Your task to perform on an android device: see tabs open on other devices in the chrome app Image 0: 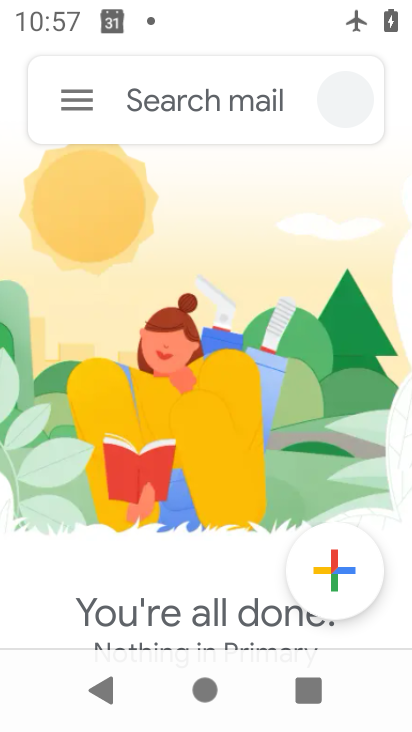
Step 0: press home button
Your task to perform on an android device: see tabs open on other devices in the chrome app Image 1: 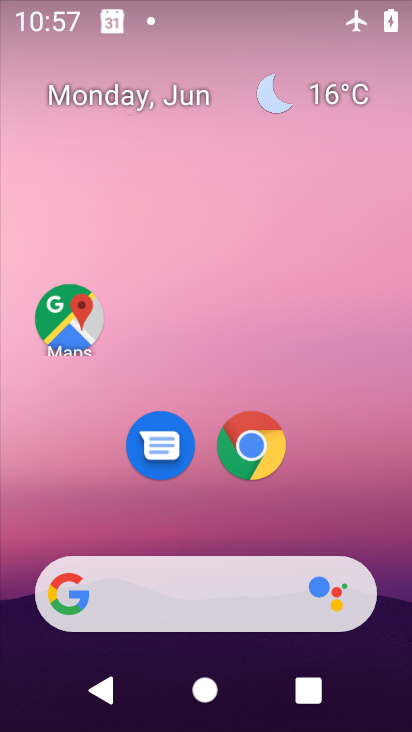
Step 1: click (245, 456)
Your task to perform on an android device: see tabs open on other devices in the chrome app Image 2: 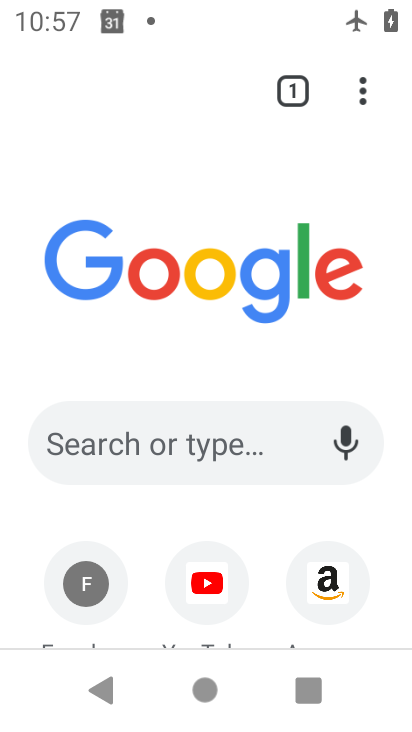
Step 2: task complete